Your task to perform on an android device: Is it going to rain today? Image 0: 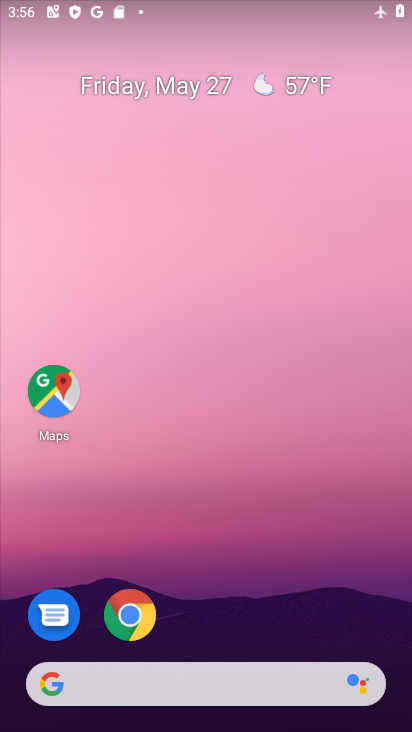
Step 0: drag from (233, 611) to (217, 43)
Your task to perform on an android device: Is it going to rain today? Image 1: 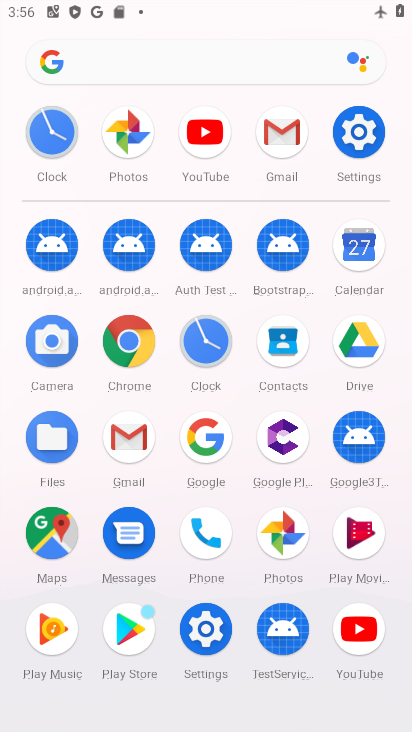
Step 1: click (208, 440)
Your task to perform on an android device: Is it going to rain today? Image 2: 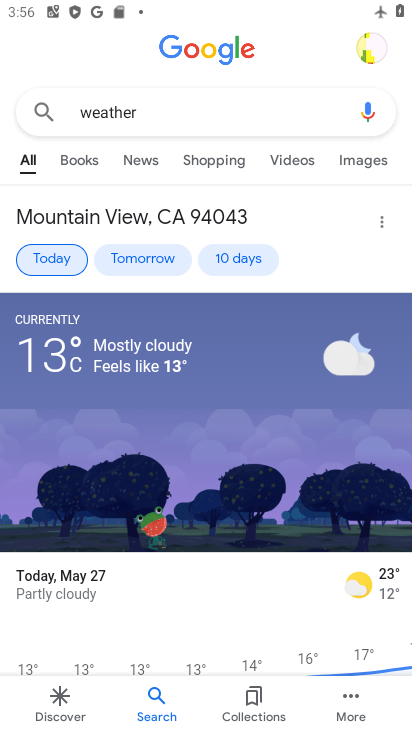
Step 2: task complete